Your task to perform on an android device: set the stopwatch Image 0: 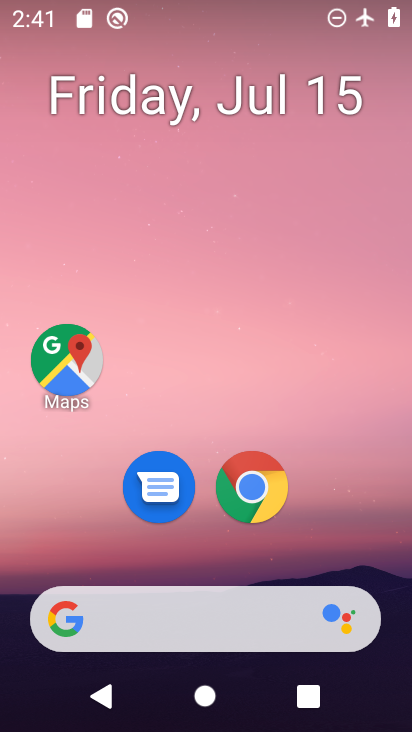
Step 0: drag from (203, 623) to (203, 239)
Your task to perform on an android device: set the stopwatch Image 1: 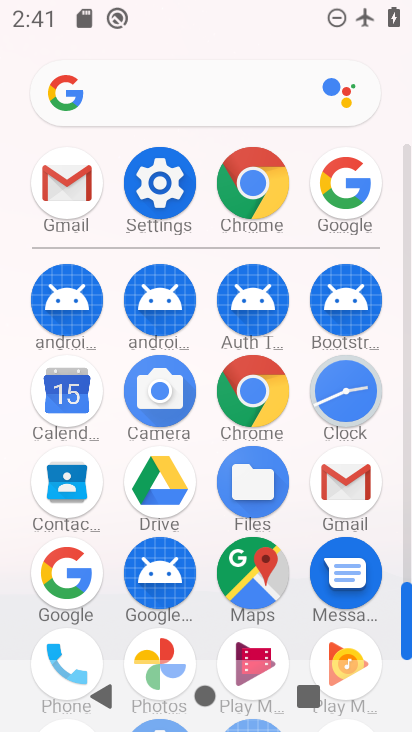
Step 1: click (341, 383)
Your task to perform on an android device: set the stopwatch Image 2: 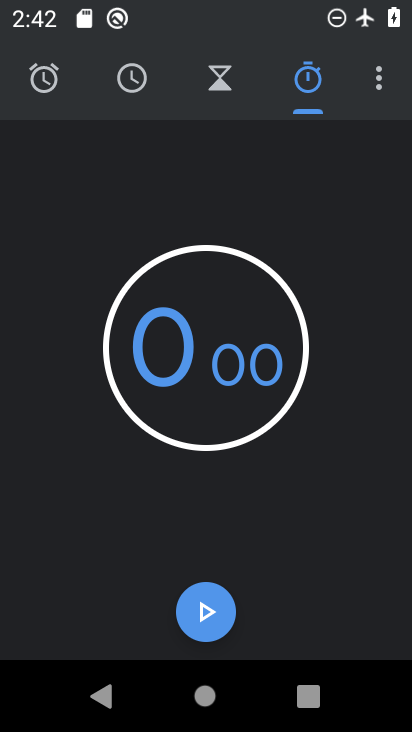
Step 2: click (209, 606)
Your task to perform on an android device: set the stopwatch Image 3: 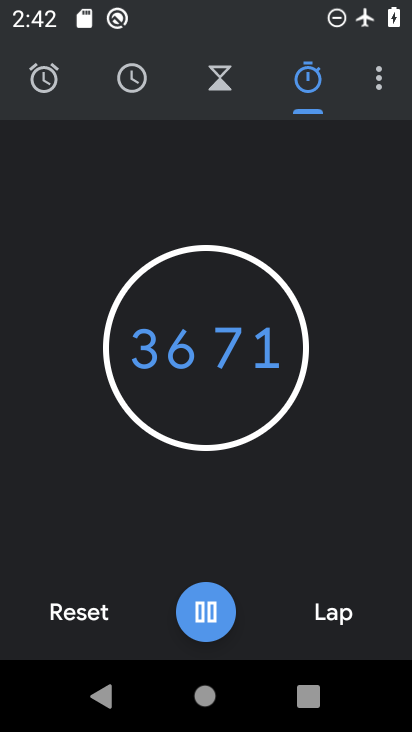
Step 3: task complete